Your task to perform on an android device: find photos in the google photos app Image 0: 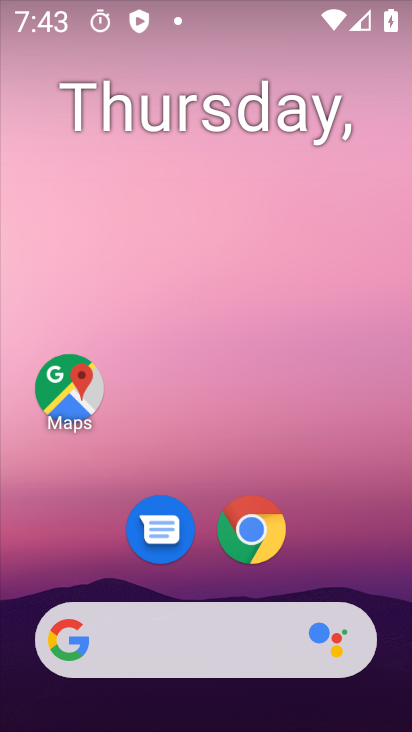
Step 0: drag from (389, 705) to (348, 110)
Your task to perform on an android device: find photos in the google photos app Image 1: 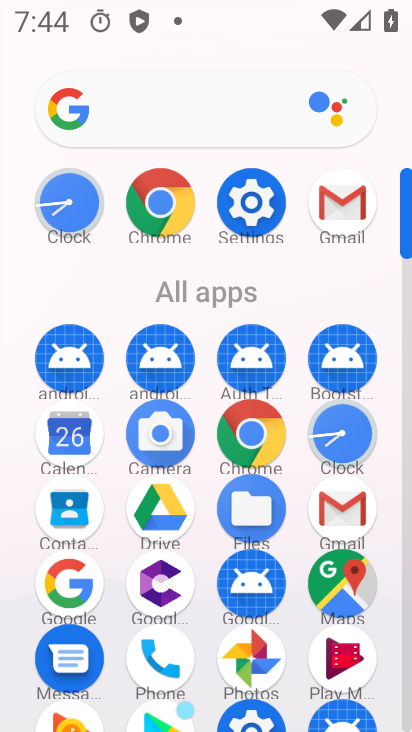
Step 1: click (238, 638)
Your task to perform on an android device: find photos in the google photos app Image 2: 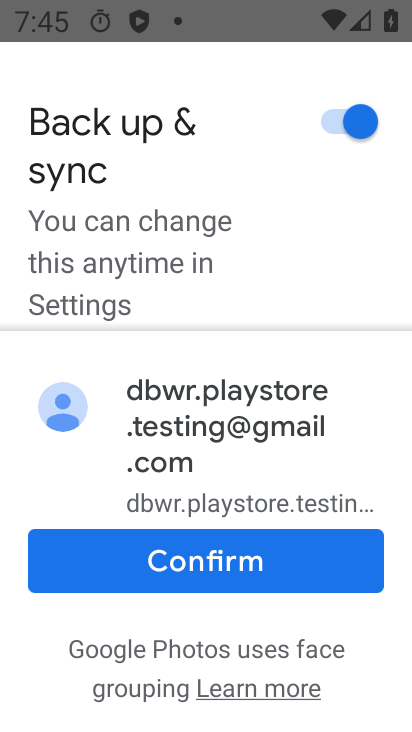
Step 2: click (269, 570)
Your task to perform on an android device: find photos in the google photos app Image 3: 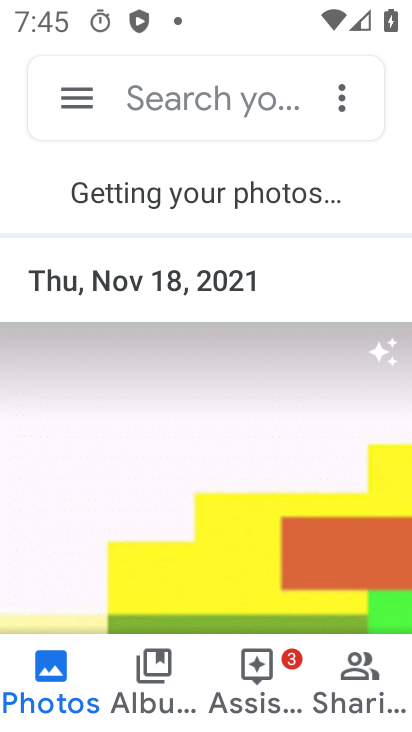
Step 3: task complete